Your task to perform on an android device: Open calendar and show me the fourth week of next month Image 0: 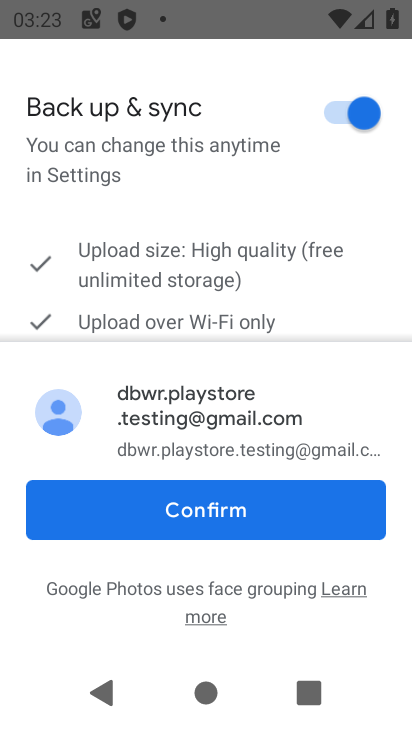
Step 0: press home button
Your task to perform on an android device: Open calendar and show me the fourth week of next month Image 1: 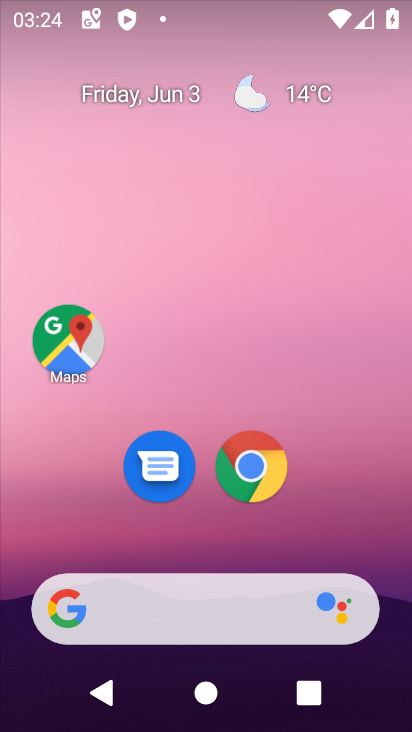
Step 1: drag from (210, 550) to (218, 71)
Your task to perform on an android device: Open calendar and show me the fourth week of next month Image 2: 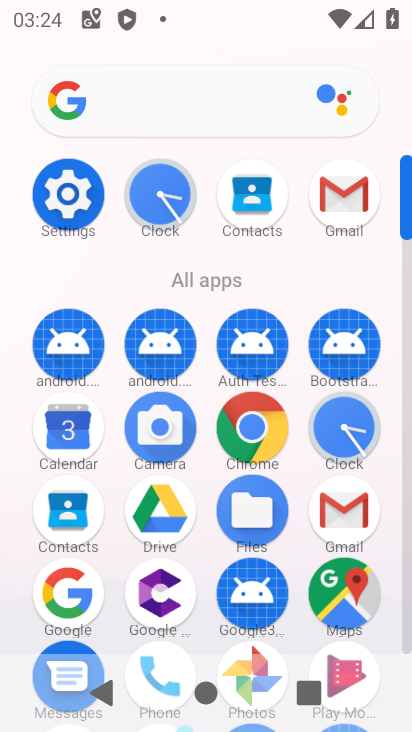
Step 2: click (71, 437)
Your task to perform on an android device: Open calendar and show me the fourth week of next month Image 3: 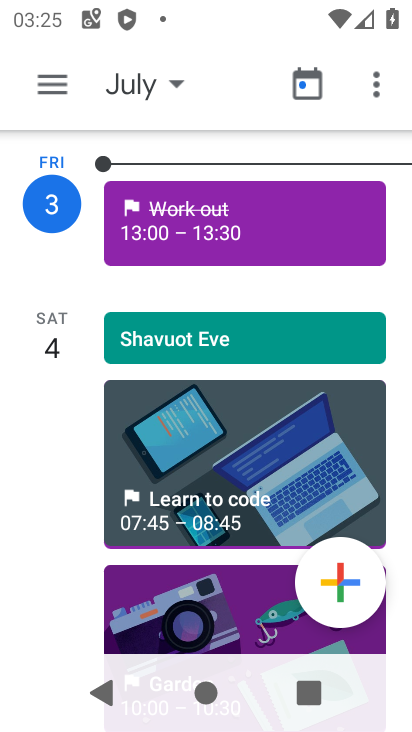
Step 3: click (165, 77)
Your task to perform on an android device: Open calendar and show me the fourth week of next month Image 4: 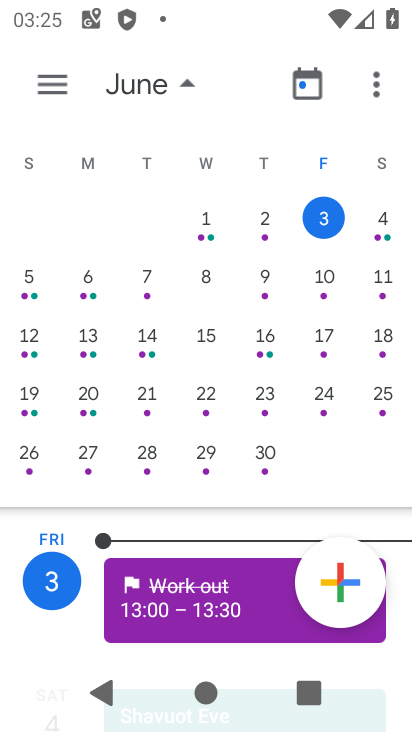
Step 4: drag from (379, 314) to (0, 328)
Your task to perform on an android device: Open calendar and show me the fourth week of next month Image 5: 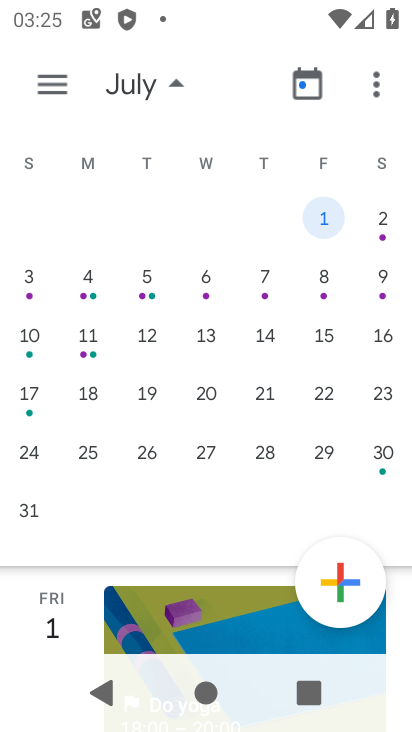
Step 5: click (29, 456)
Your task to perform on an android device: Open calendar and show me the fourth week of next month Image 6: 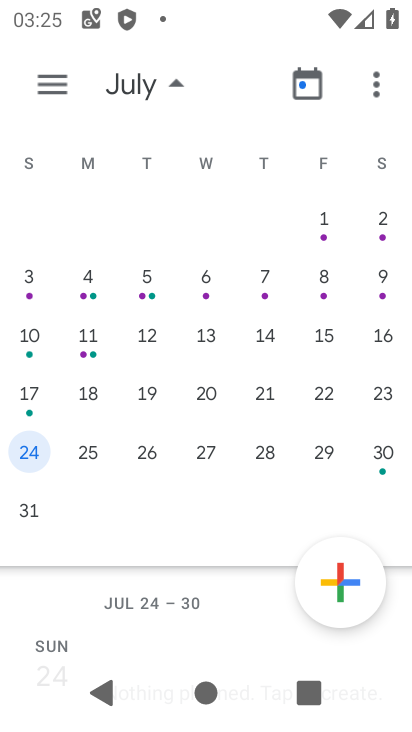
Step 6: click (171, 84)
Your task to perform on an android device: Open calendar and show me the fourth week of next month Image 7: 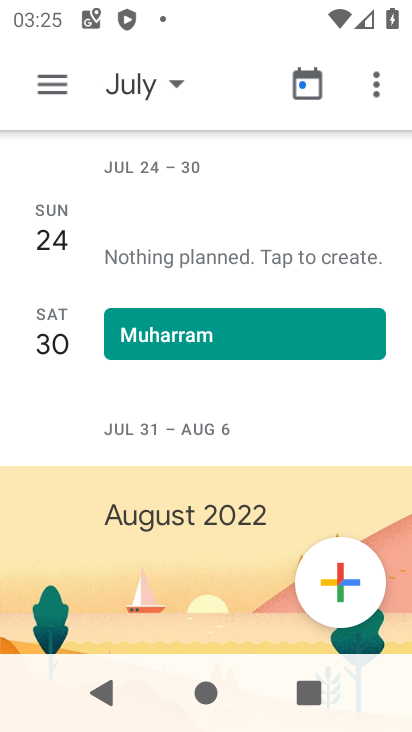
Step 7: task complete